Your task to perform on an android device: Show me the alarms in the clock app Image 0: 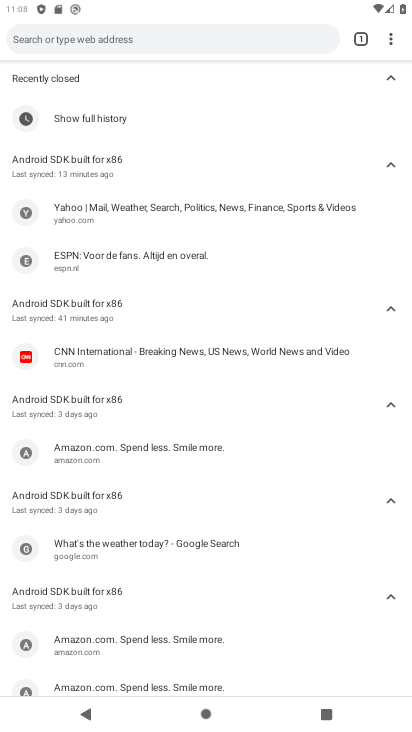
Step 0: press home button
Your task to perform on an android device: Show me the alarms in the clock app Image 1: 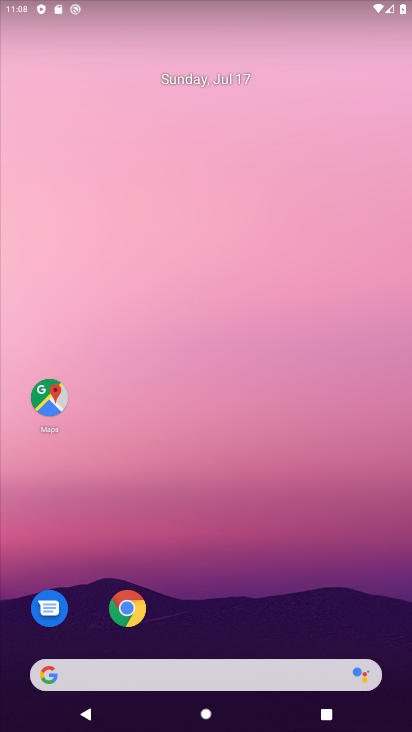
Step 1: drag from (226, 617) to (207, 162)
Your task to perform on an android device: Show me the alarms in the clock app Image 2: 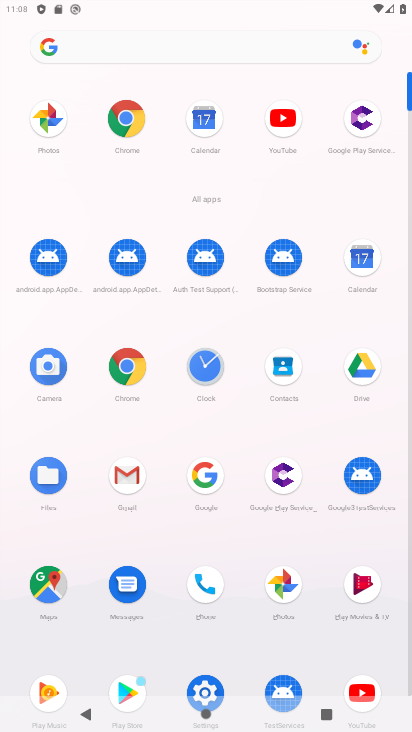
Step 2: click (201, 367)
Your task to perform on an android device: Show me the alarms in the clock app Image 3: 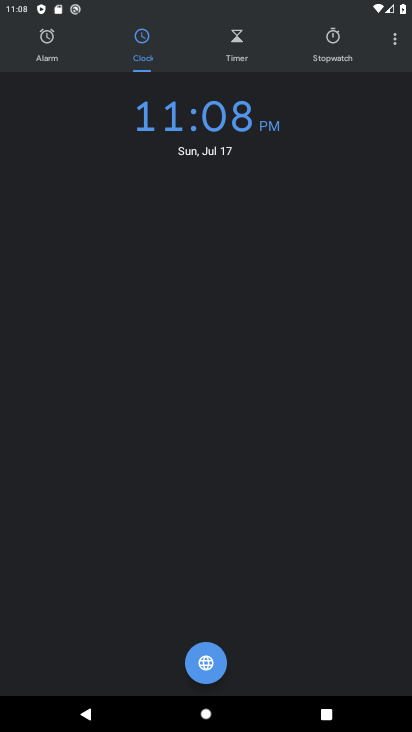
Step 3: click (48, 60)
Your task to perform on an android device: Show me the alarms in the clock app Image 4: 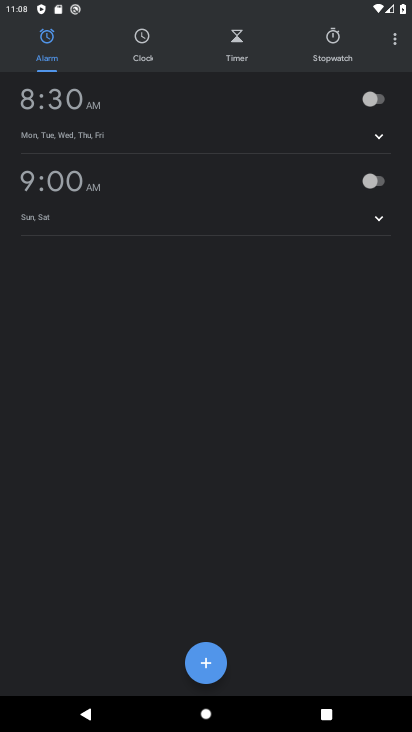
Step 4: task complete